Your task to perform on an android device: find which apps use the phone's location Image 0: 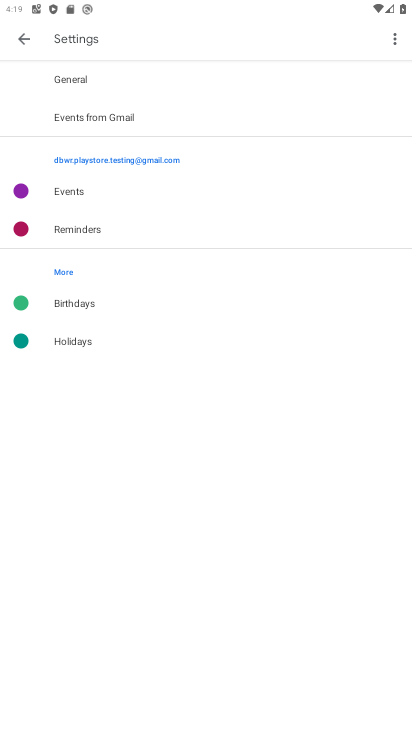
Step 0: press home button
Your task to perform on an android device: find which apps use the phone's location Image 1: 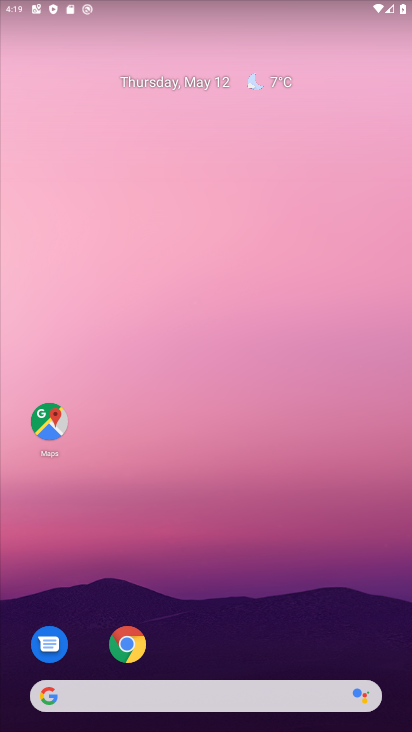
Step 1: drag from (194, 657) to (221, 90)
Your task to perform on an android device: find which apps use the phone's location Image 2: 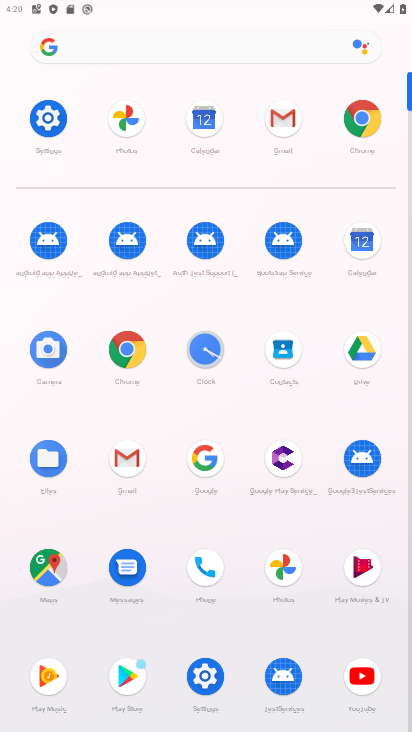
Step 2: click (47, 101)
Your task to perform on an android device: find which apps use the phone's location Image 3: 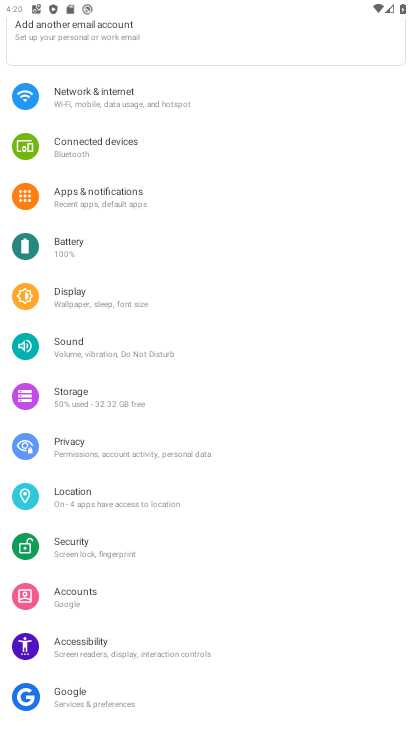
Step 3: click (83, 492)
Your task to perform on an android device: find which apps use the phone's location Image 4: 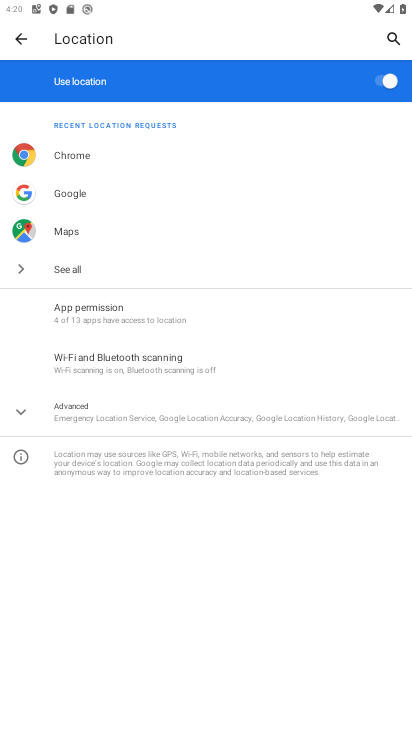
Step 4: click (111, 307)
Your task to perform on an android device: find which apps use the phone's location Image 5: 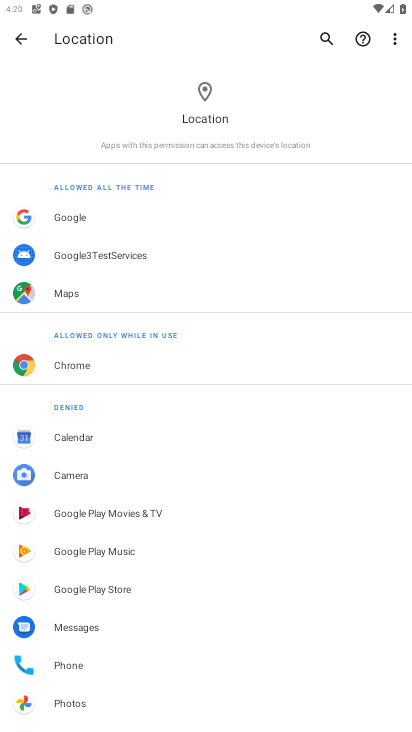
Step 5: task complete